Your task to perform on an android device: What's on my calendar tomorrow? Image 0: 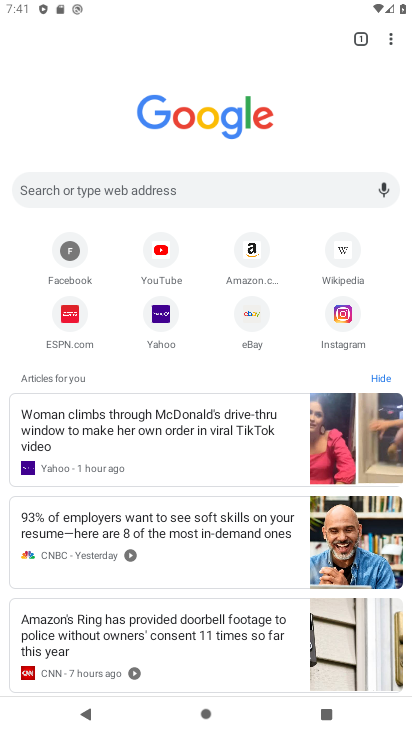
Step 0: press home button
Your task to perform on an android device: What's on my calendar tomorrow? Image 1: 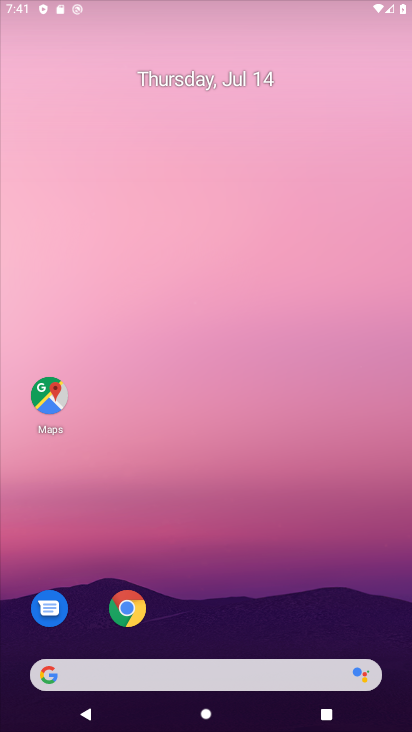
Step 1: drag from (255, 578) to (252, 22)
Your task to perform on an android device: What's on my calendar tomorrow? Image 2: 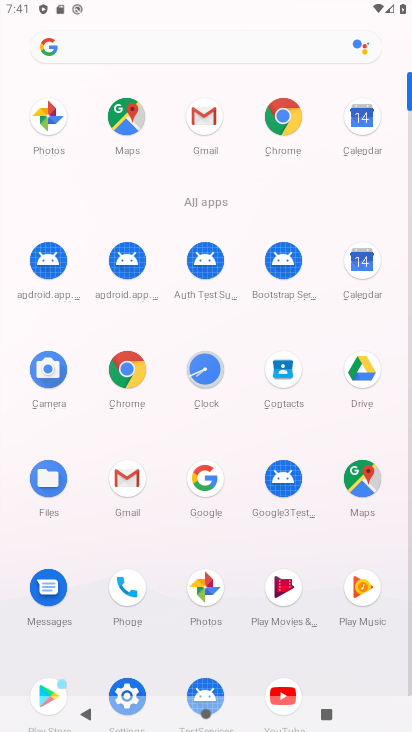
Step 2: click (358, 263)
Your task to perform on an android device: What's on my calendar tomorrow? Image 3: 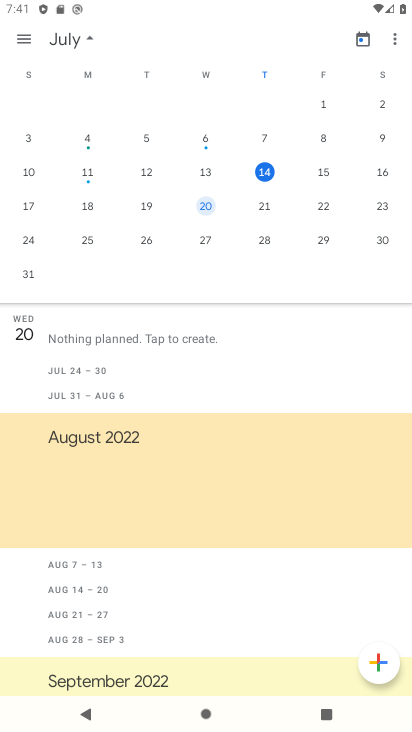
Step 3: click (319, 173)
Your task to perform on an android device: What's on my calendar tomorrow? Image 4: 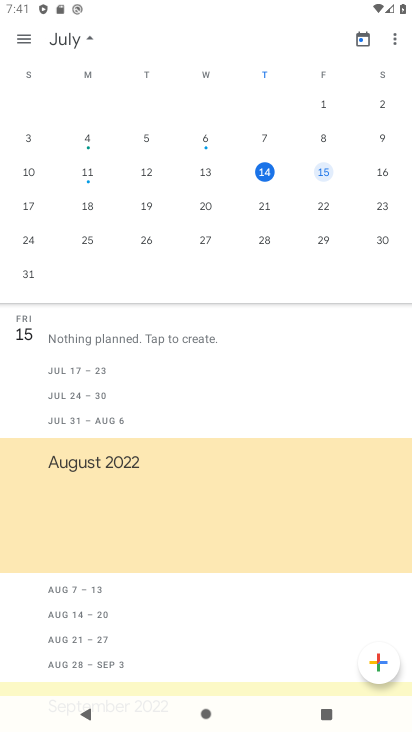
Step 4: task complete